Your task to perform on an android device: add a contact in the contacts app Image 0: 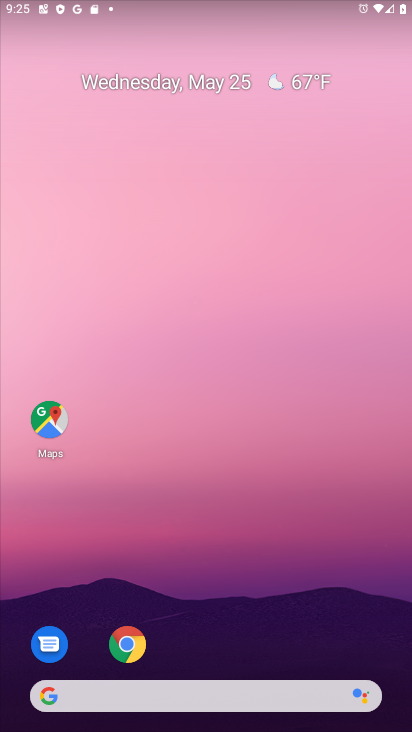
Step 0: drag from (230, 656) to (291, 39)
Your task to perform on an android device: add a contact in the contacts app Image 1: 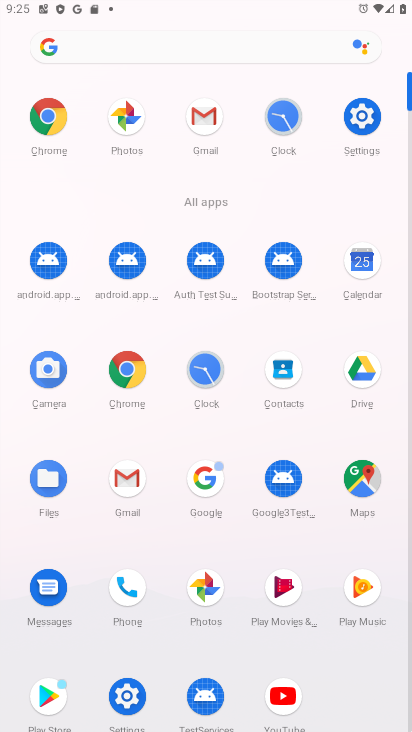
Step 1: click (283, 368)
Your task to perform on an android device: add a contact in the contacts app Image 2: 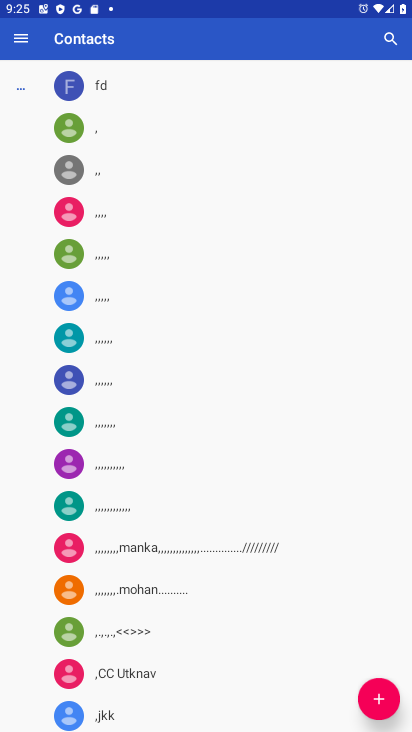
Step 2: click (376, 692)
Your task to perform on an android device: add a contact in the contacts app Image 3: 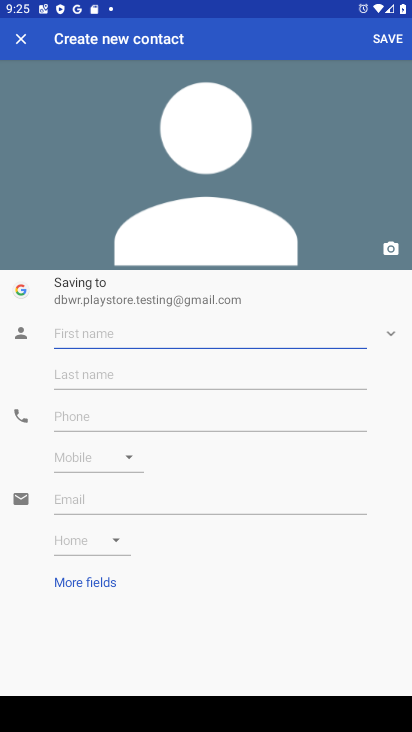
Step 3: type "gftrtfg"
Your task to perform on an android device: add a contact in the contacts app Image 4: 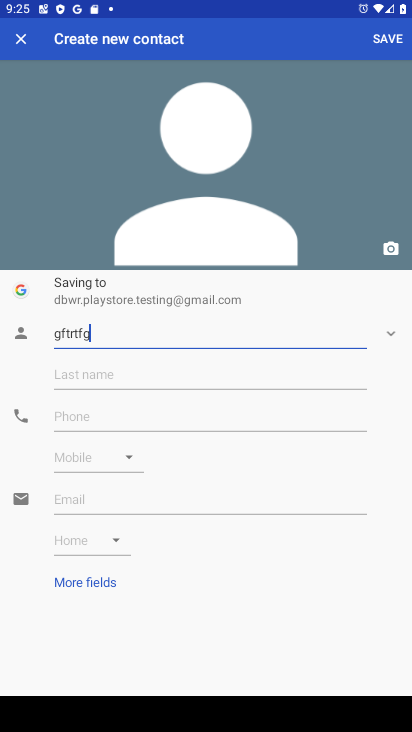
Step 4: click (389, 36)
Your task to perform on an android device: add a contact in the contacts app Image 5: 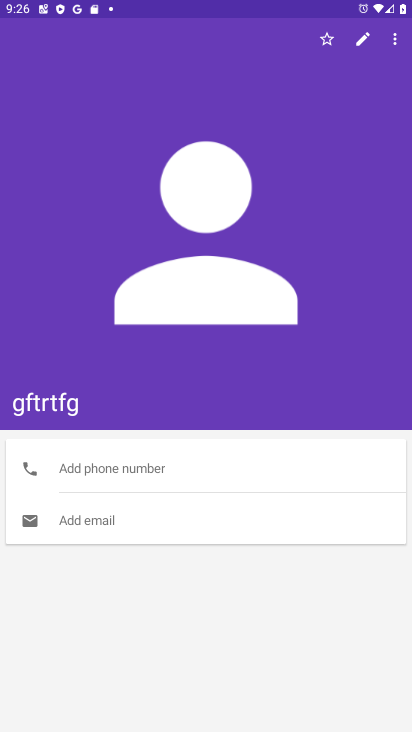
Step 5: task complete